Your task to perform on an android device: toggle translation in the chrome app Image 0: 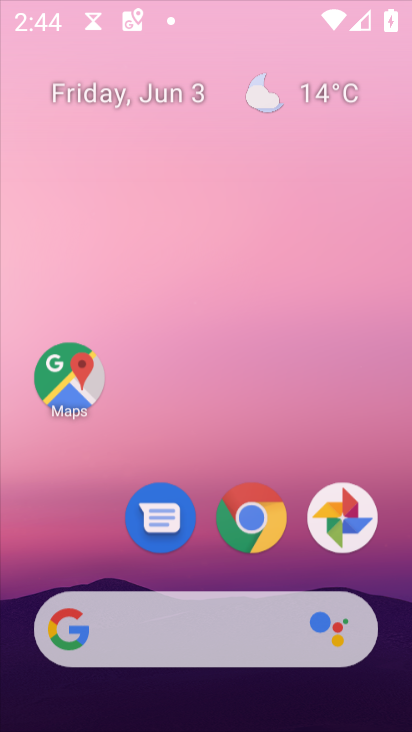
Step 0: click (249, 304)
Your task to perform on an android device: toggle translation in the chrome app Image 1: 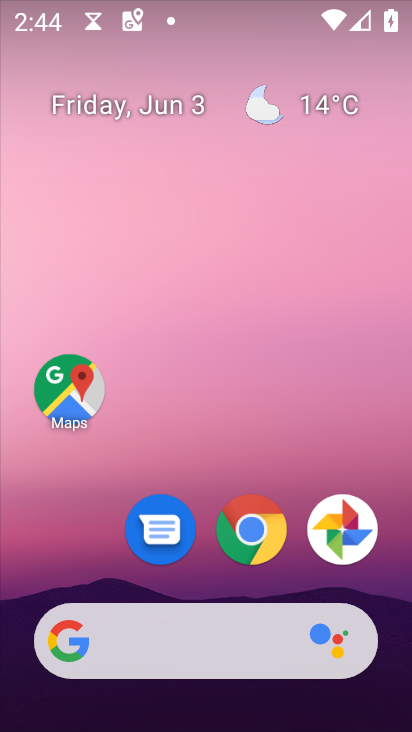
Step 1: click (213, 166)
Your task to perform on an android device: toggle translation in the chrome app Image 2: 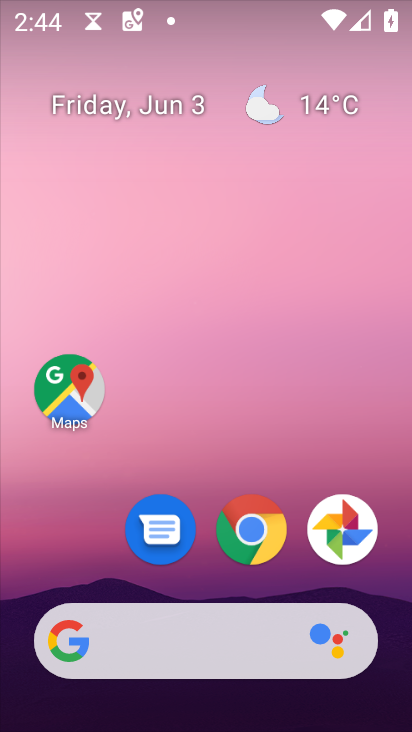
Step 2: drag from (218, 405) to (182, 74)
Your task to perform on an android device: toggle translation in the chrome app Image 3: 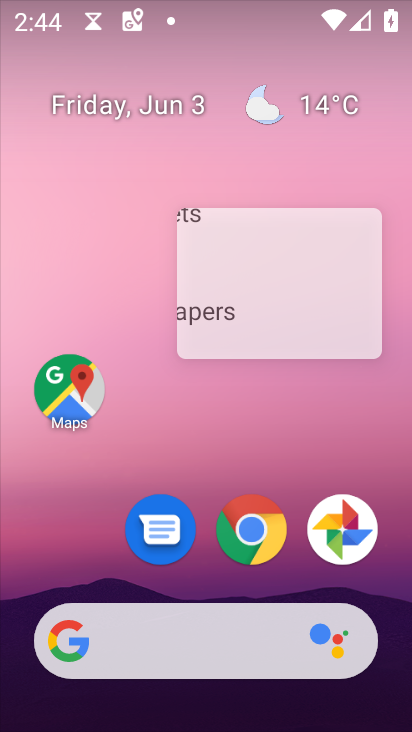
Step 3: drag from (216, 77) to (202, 0)
Your task to perform on an android device: toggle translation in the chrome app Image 4: 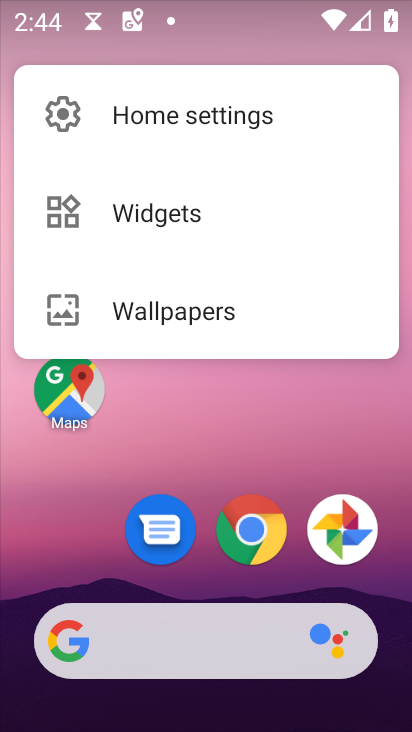
Step 4: drag from (221, 490) to (232, 184)
Your task to perform on an android device: toggle translation in the chrome app Image 5: 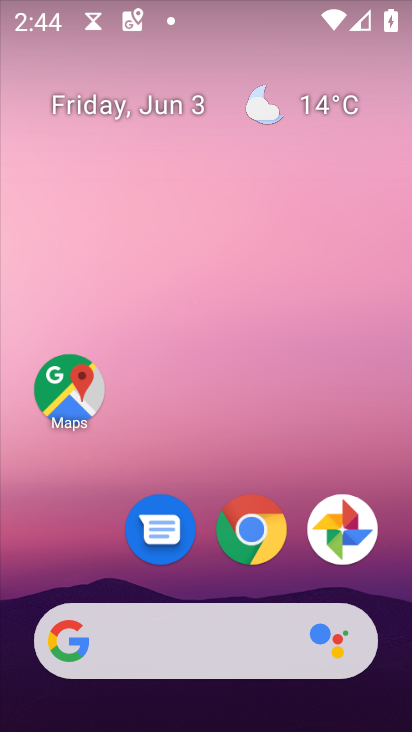
Step 5: click (225, 132)
Your task to perform on an android device: toggle translation in the chrome app Image 6: 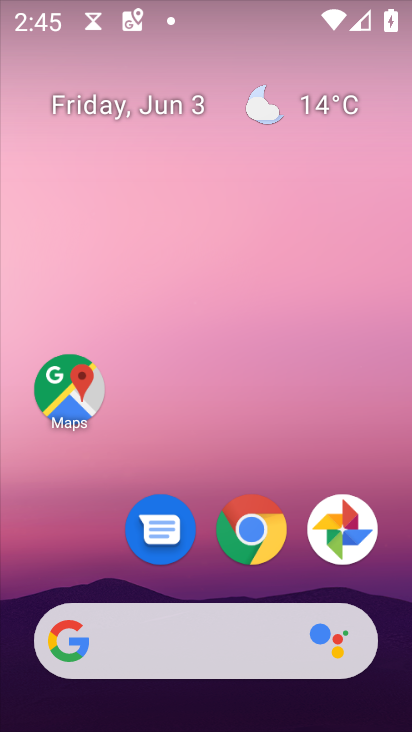
Step 6: drag from (190, 560) to (149, 121)
Your task to perform on an android device: toggle translation in the chrome app Image 7: 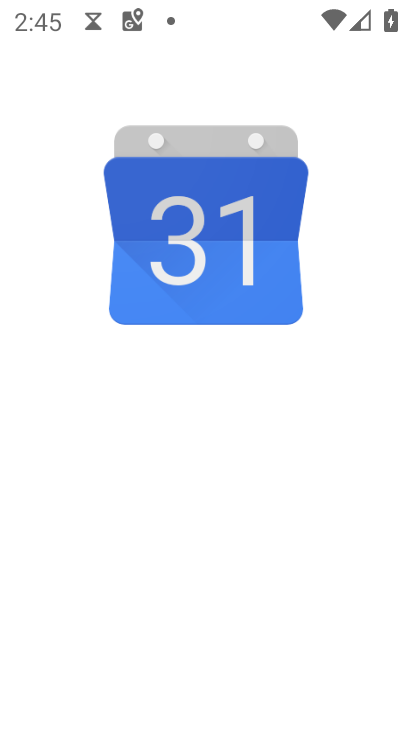
Step 7: drag from (205, 563) to (130, 76)
Your task to perform on an android device: toggle translation in the chrome app Image 8: 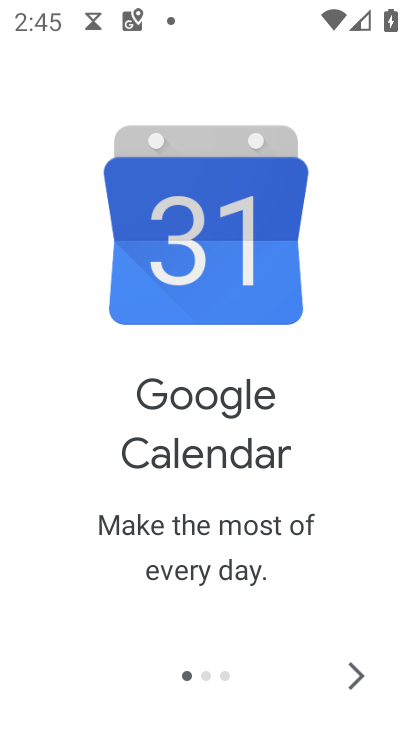
Step 8: click (365, 676)
Your task to perform on an android device: toggle translation in the chrome app Image 9: 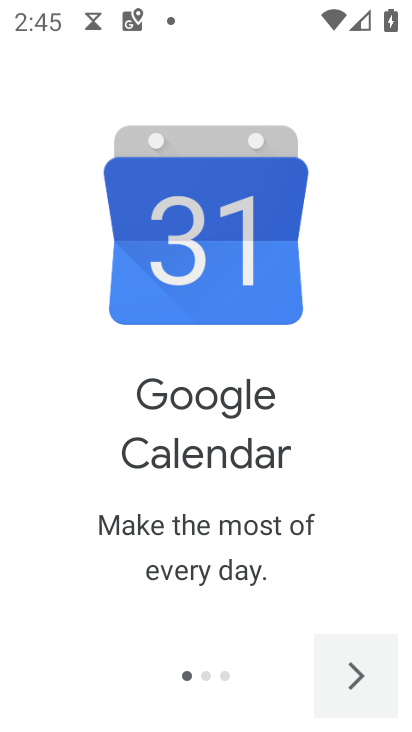
Step 9: click (365, 676)
Your task to perform on an android device: toggle translation in the chrome app Image 10: 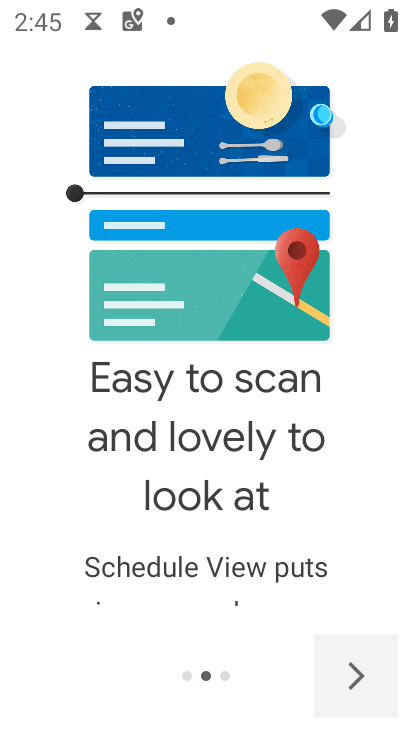
Step 10: click (365, 676)
Your task to perform on an android device: toggle translation in the chrome app Image 11: 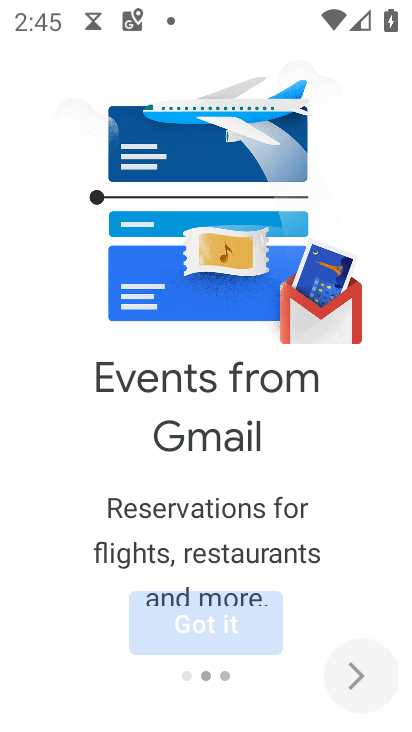
Step 11: click (365, 676)
Your task to perform on an android device: toggle translation in the chrome app Image 12: 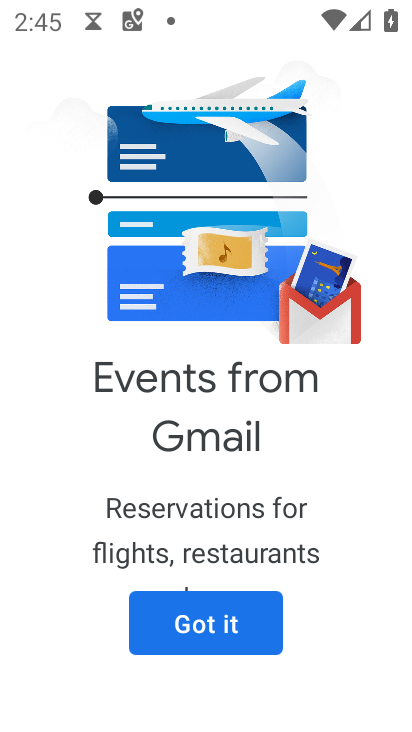
Step 12: click (365, 676)
Your task to perform on an android device: toggle translation in the chrome app Image 13: 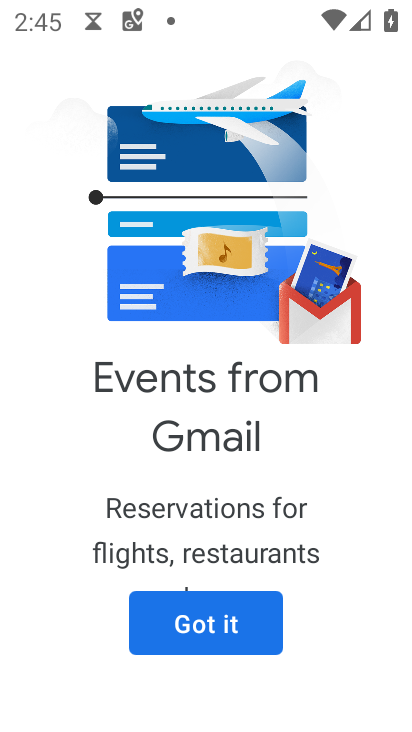
Step 13: click (247, 625)
Your task to perform on an android device: toggle translation in the chrome app Image 14: 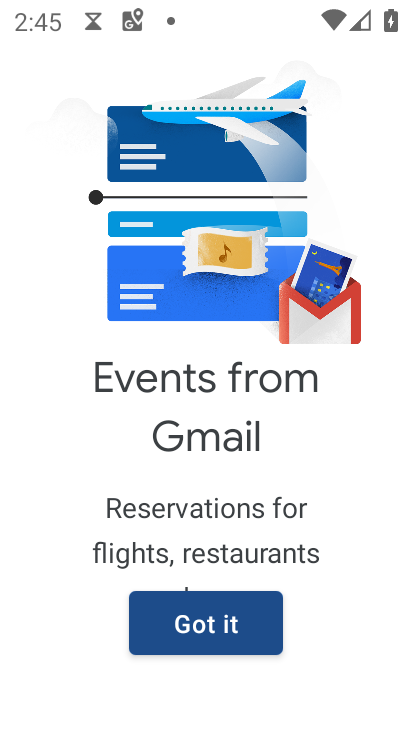
Step 14: click (235, 621)
Your task to perform on an android device: toggle translation in the chrome app Image 15: 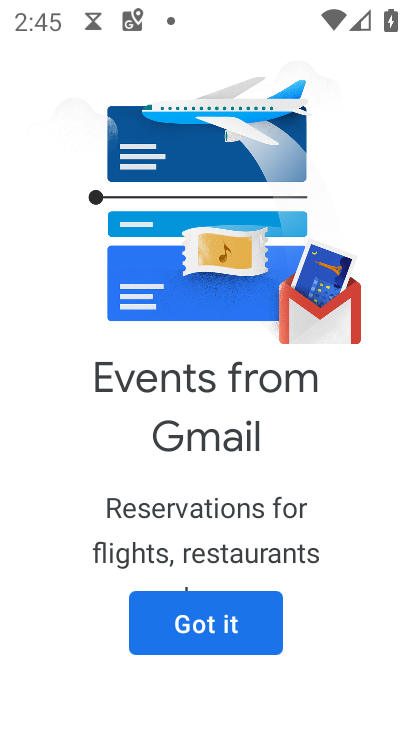
Step 15: click (235, 621)
Your task to perform on an android device: toggle translation in the chrome app Image 16: 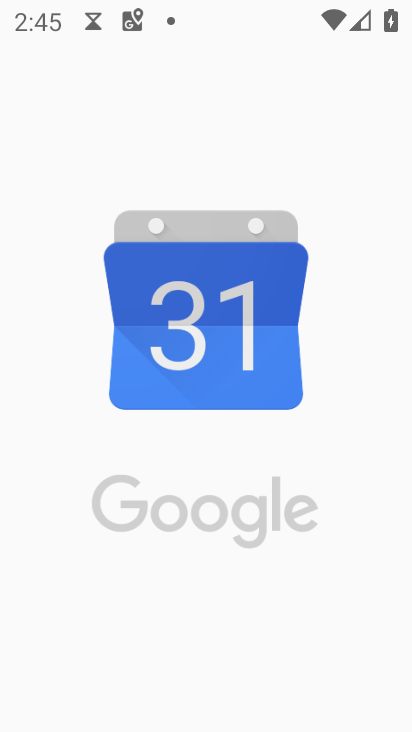
Step 16: click (235, 621)
Your task to perform on an android device: toggle translation in the chrome app Image 17: 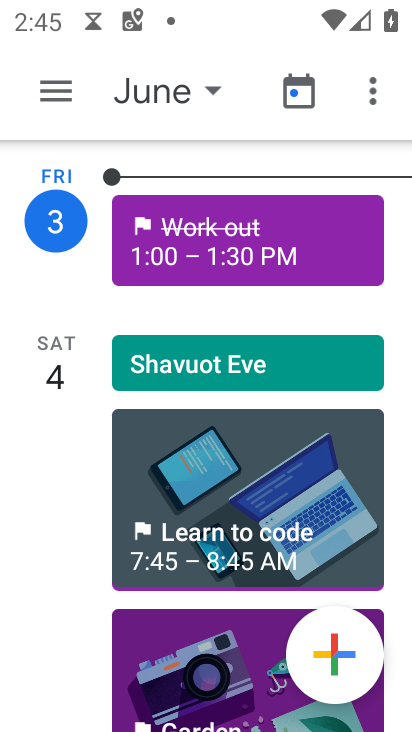
Step 17: press home button
Your task to perform on an android device: toggle translation in the chrome app Image 18: 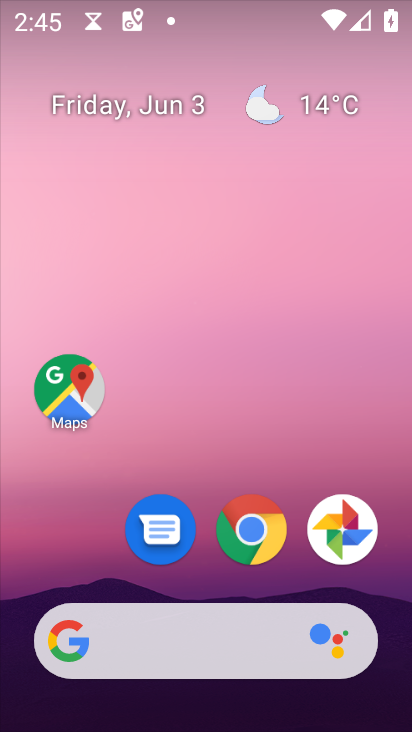
Step 18: drag from (230, 471) to (212, 171)
Your task to perform on an android device: toggle translation in the chrome app Image 19: 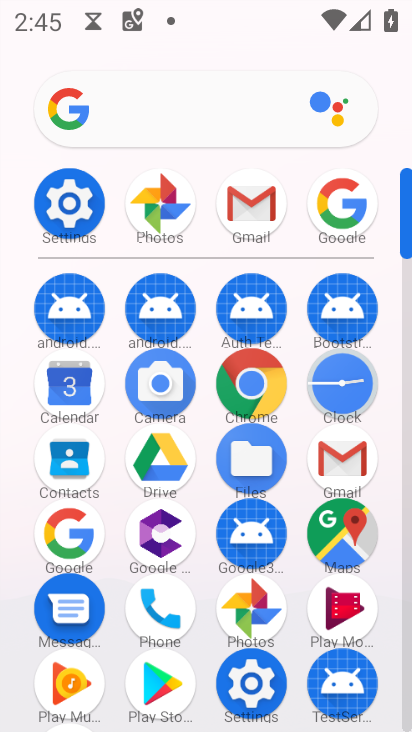
Step 19: click (244, 391)
Your task to perform on an android device: toggle translation in the chrome app Image 20: 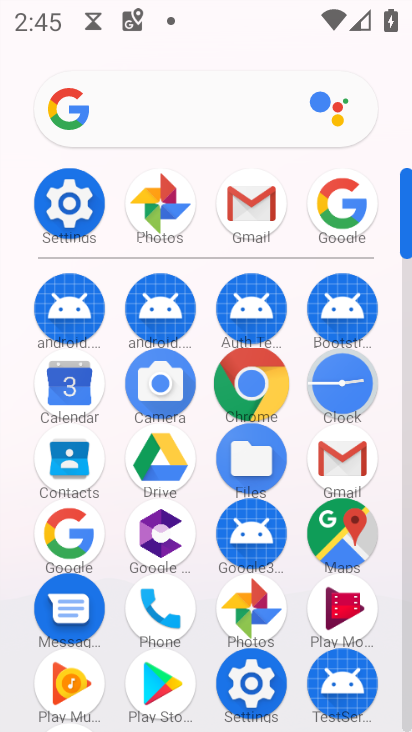
Step 20: click (244, 391)
Your task to perform on an android device: toggle translation in the chrome app Image 21: 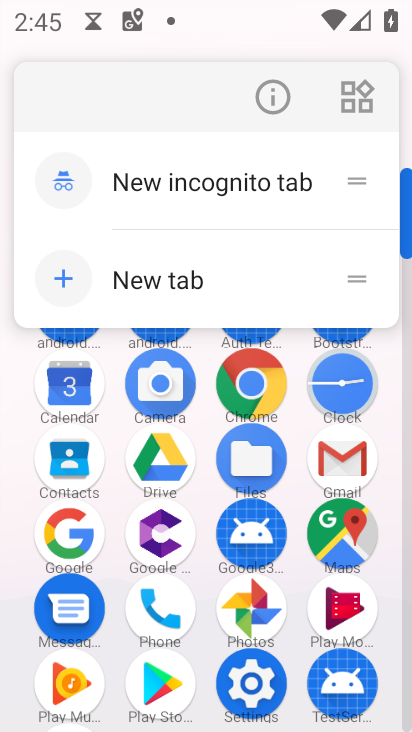
Step 21: click (168, 277)
Your task to perform on an android device: toggle translation in the chrome app Image 22: 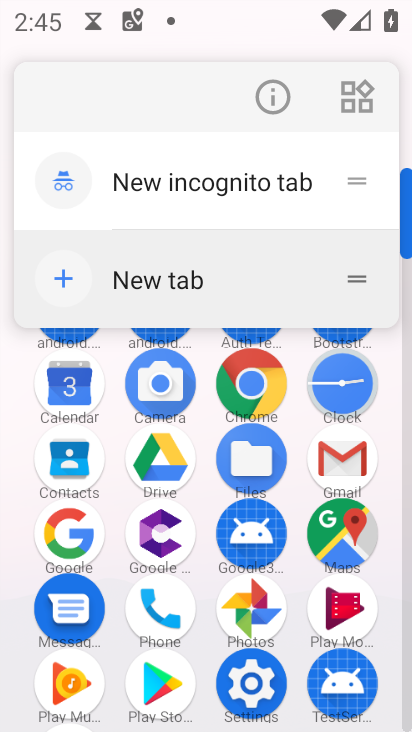
Step 22: click (168, 277)
Your task to perform on an android device: toggle translation in the chrome app Image 23: 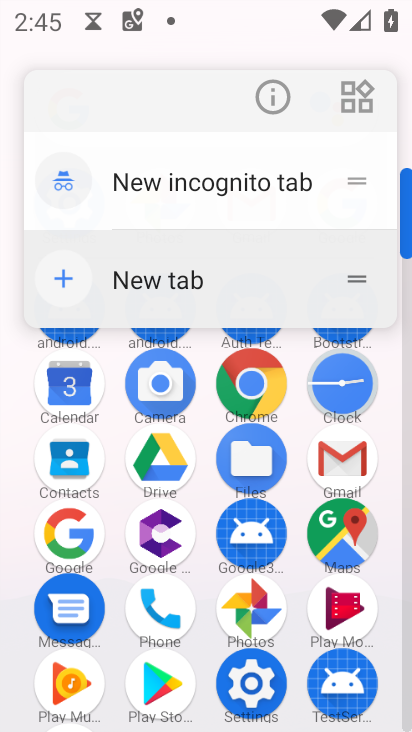
Step 23: click (168, 277)
Your task to perform on an android device: toggle translation in the chrome app Image 24: 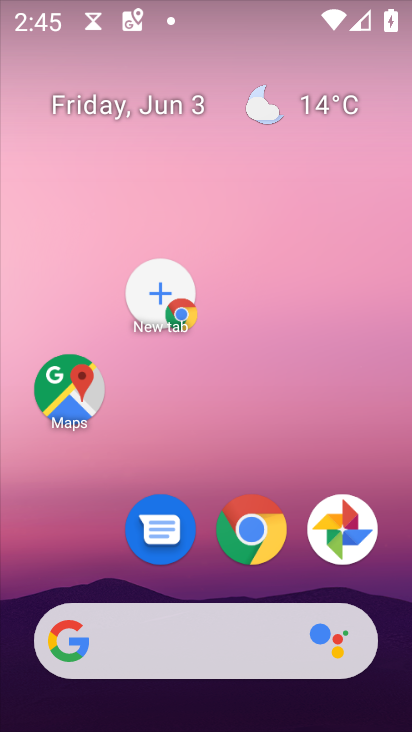
Step 24: drag from (254, 481) to (251, 202)
Your task to perform on an android device: toggle translation in the chrome app Image 25: 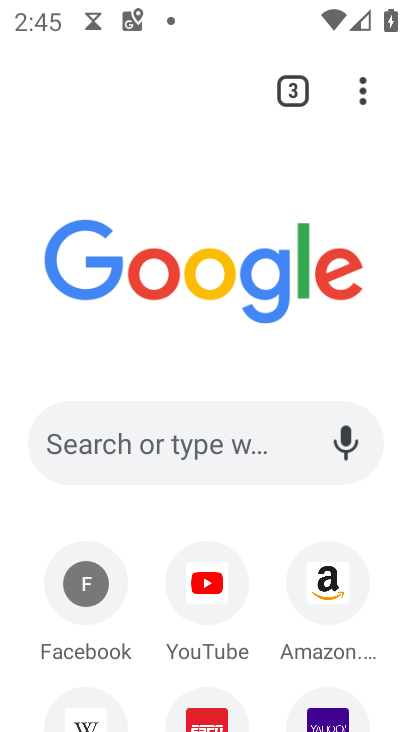
Step 25: drag from (358, 99) to (90, 556)
Your task to perform on an android device: toggle translation in the chrome app Image 26: 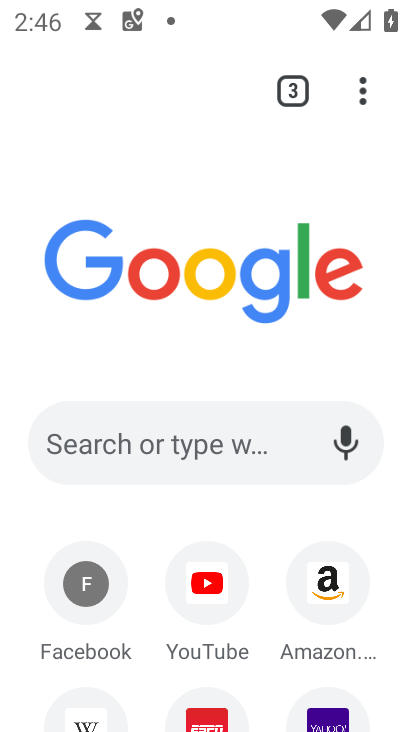
Step 26: click (91, 563)
Your task to perform on an android device: toggle translation in the chrome app Image 27: 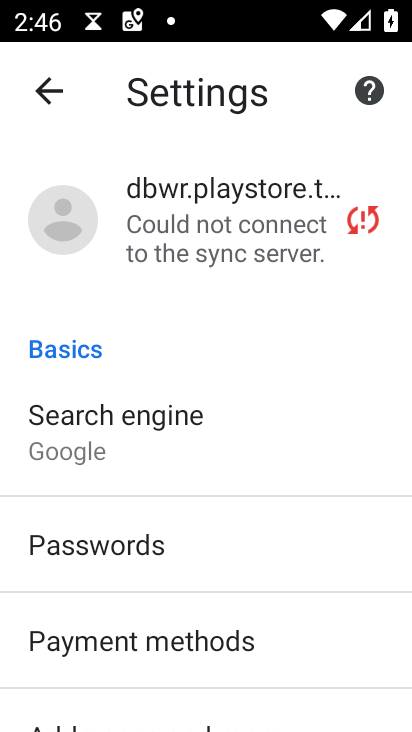
Step 27: drag from (155, 541) to (99, 248)
Your task to perform on an android device: toggle translation in the chrome app Image 28: 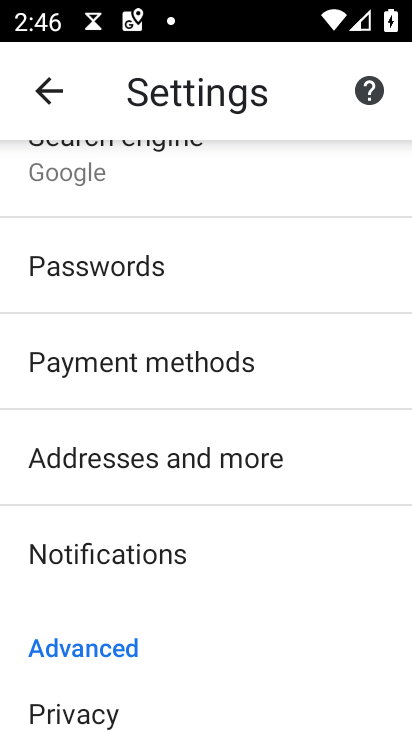
Step 28: drag from (108, 521) to (103, 303)
Your task to perform on an android device: toggle translation in the chrome app Image 29: 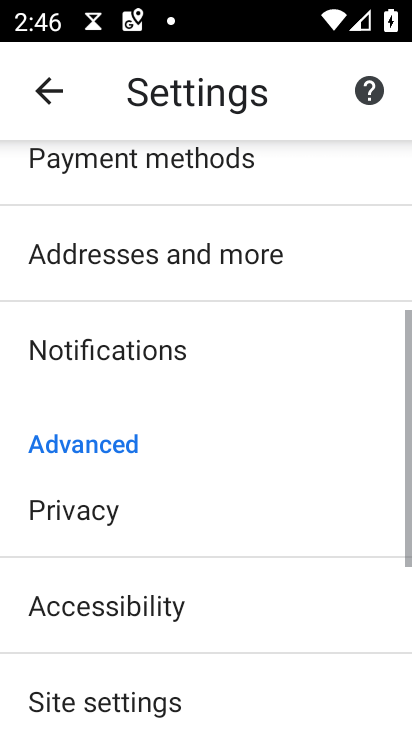
Step 29: drag from (145, 518) to (140, 350)
Your task to perform on an android device: toggle translation in the chrome app Image 30: 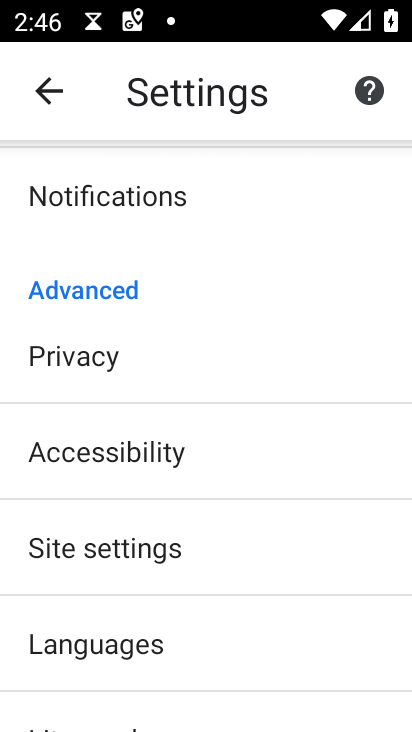
Step 30: click (109, 640)
Your task to perform on an android device: toggle translation in the chrome app Image 31: 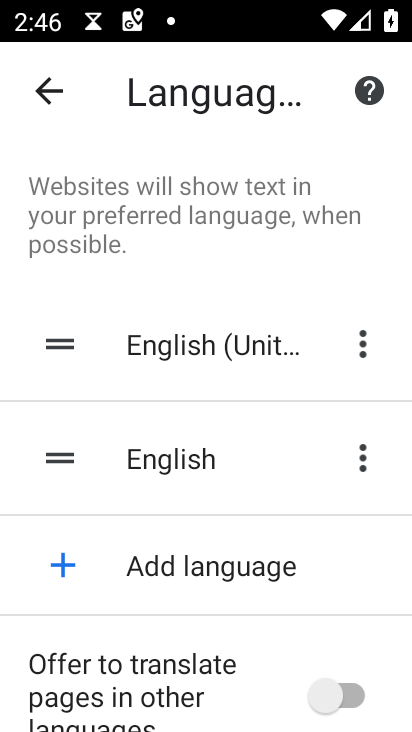
Step 31: drag from (242, 487) to (225, 170)
Your task to perform on an android device: toggle translation in the chrome app Image 32: 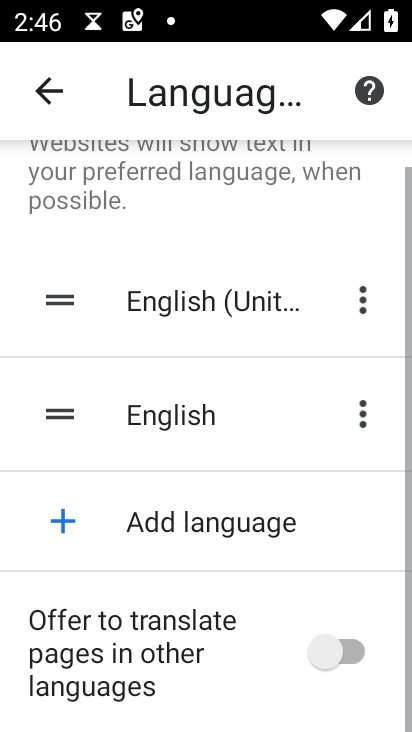
Step 32: drag from (221, 521) to (235, 205)
Your task to perform on an android device: toggle translation in the chrome app Image 33: 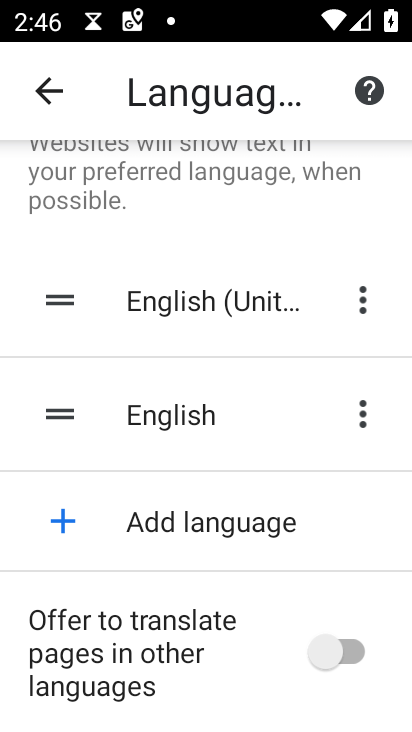
Step 33: click (327, 664)
Your task to perform on an android device: toggle translation in the chrome app Image 34: 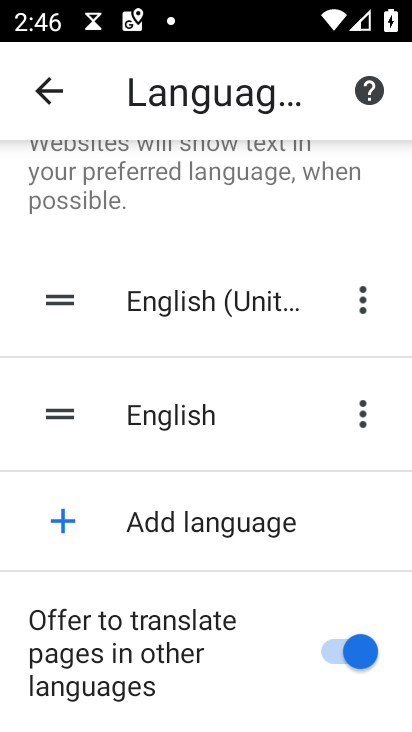
Step 34: task complete